Your task to perform on an android device: clear history in the chrome app Image 0: 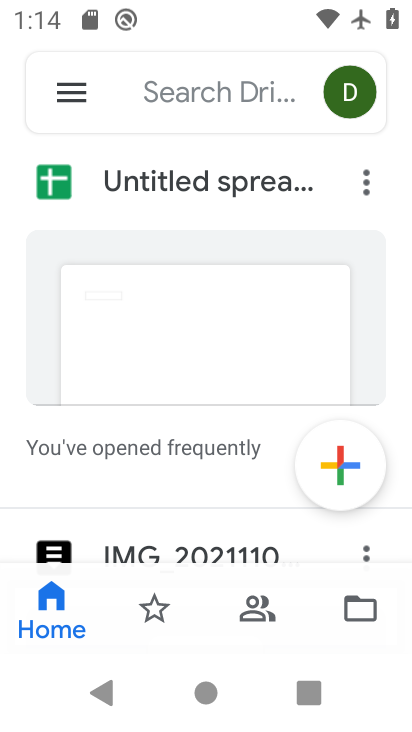
Step 0: press home button
Your task to perform on an android device: clear history in the chrome app Image 1: 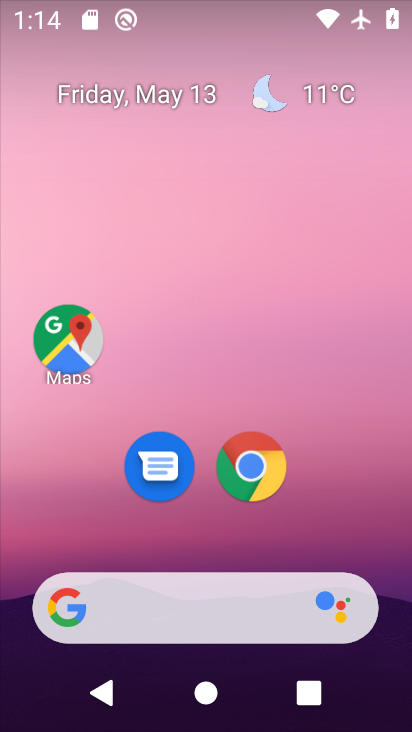
Step 1: click (249, 478)
Your task to perform on an android device: clear history in the chrome app Image 2: 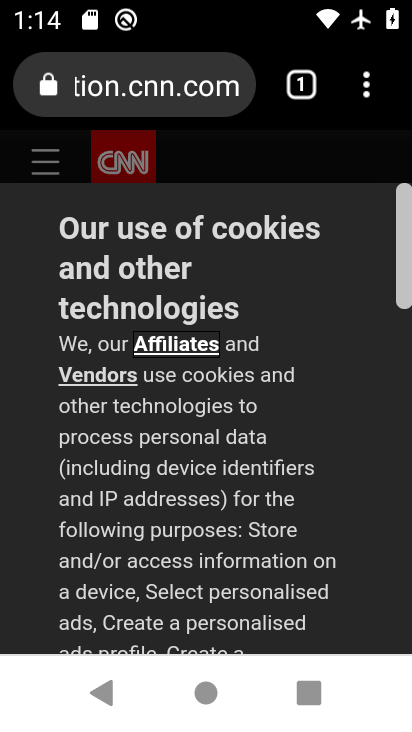
Step 2: click (363, 95)
Your task to perform on an android device: clear history in the chrome app Image 3: 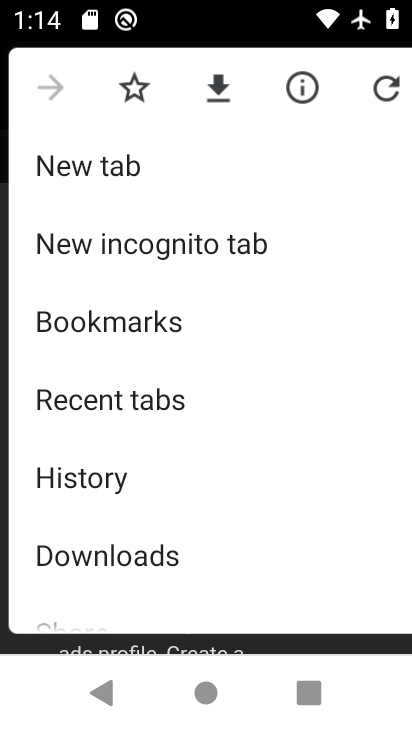
Step 3: click (116, 470)
Your task to perform on an android device: clear history in the chrome app Image 4: 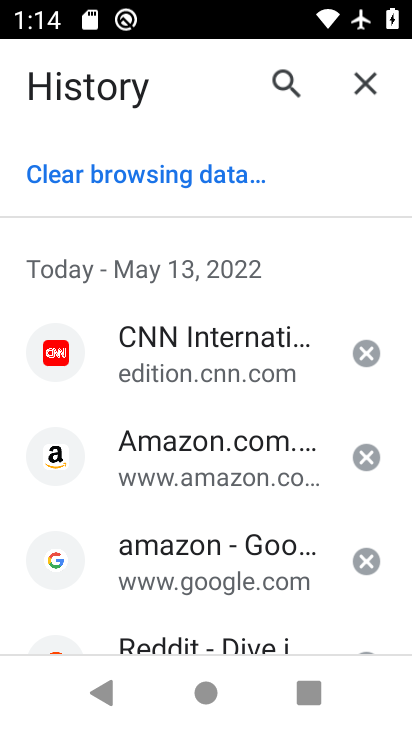
Step 4: click (141, 163)
Your task to perform on an android device: clear history in the chrome app Image 5: 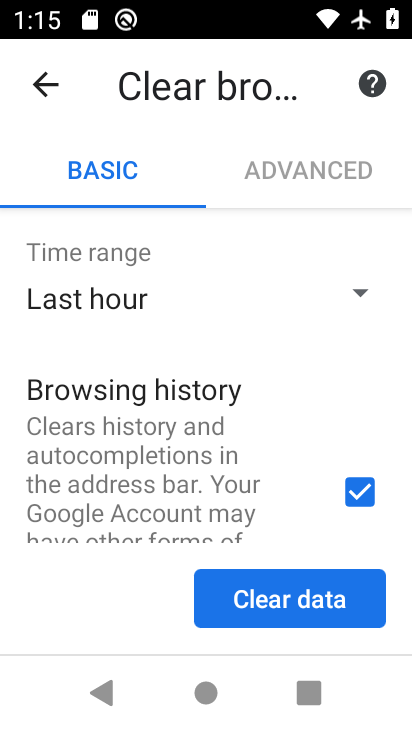
Step 5: click (236, 578)
Your task to perform on an android device: clear history in the chrome app Image 6: 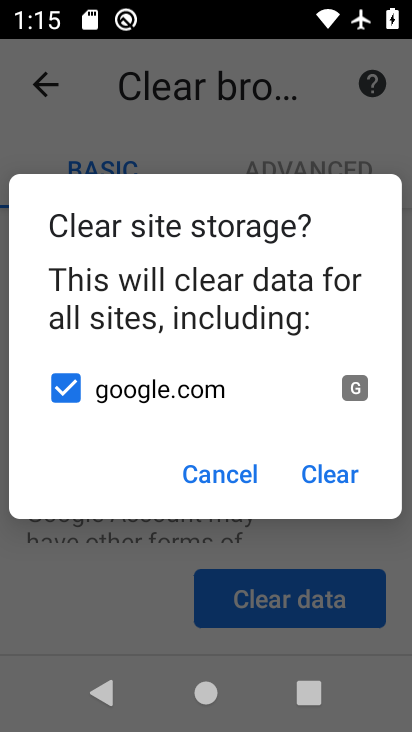
Step 6: click (359, 481)
Your task to perform on an android device: clear history in the chrome app Image 7: 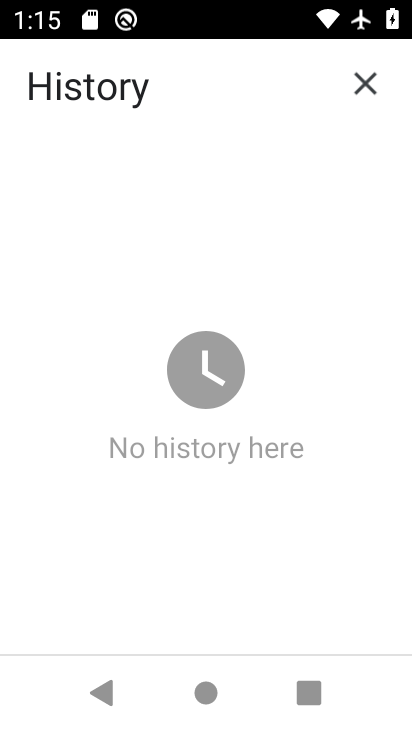
Step 7: task complete